Your task to perform on an android device: Do I have any events today? Image 0: 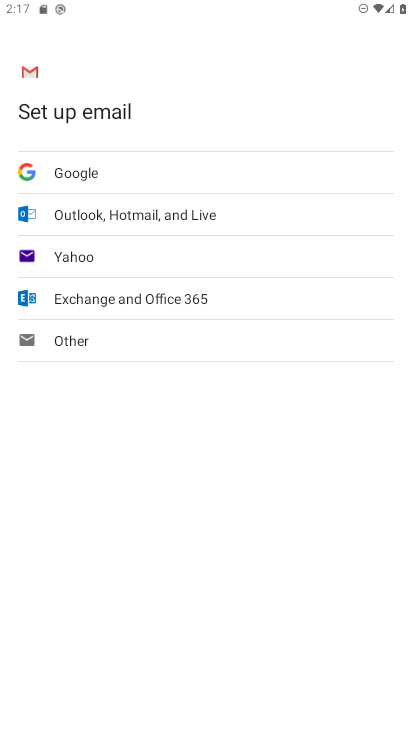
Step 0: press home button
Your task to perform on an android device: Do I have any events today? Image 1: 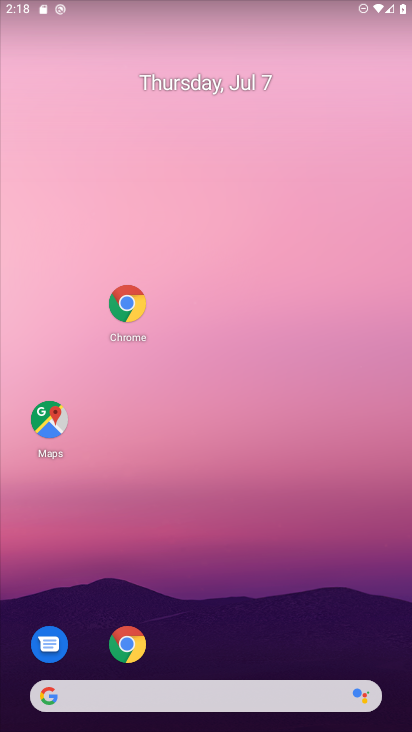
Step 1: drag from (316, 549) to (299, 8)
Your task to perform on an android device: Do I have any events today? Image 2: 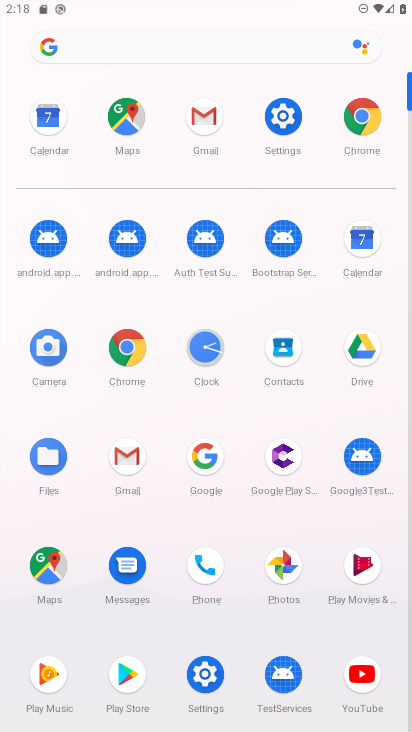
Step 2: click (362, 253)
Your task to perform on an android device: Do I have any events today? Image 3: 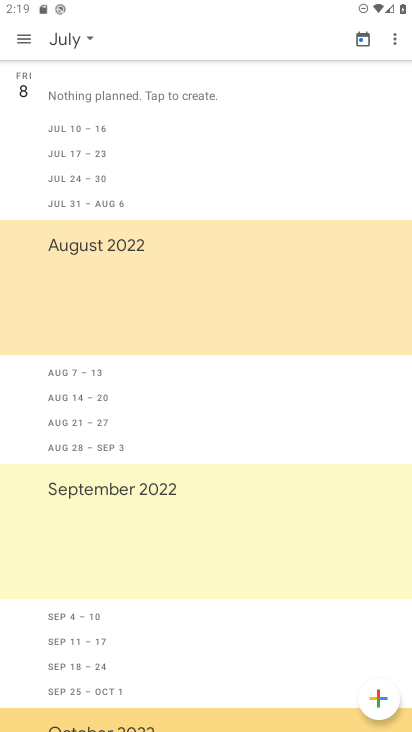
Step 3: click (37, 48)
Your task to perform on an android device: Do I have any events today? Image 4: 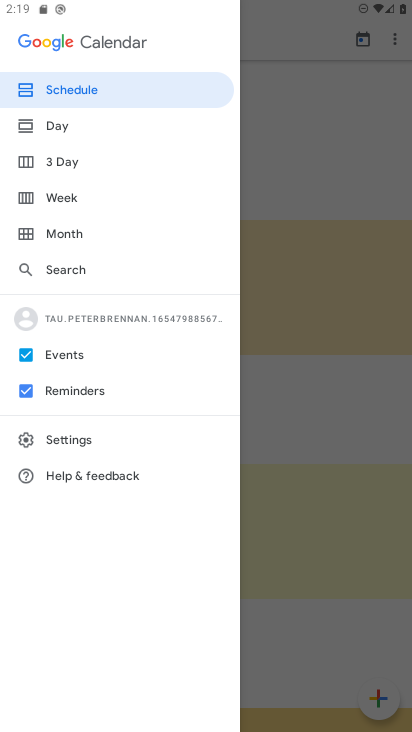
Step 4: click (100, 120)
Your task to perform on an android device: Do I have any events today? Image 5: 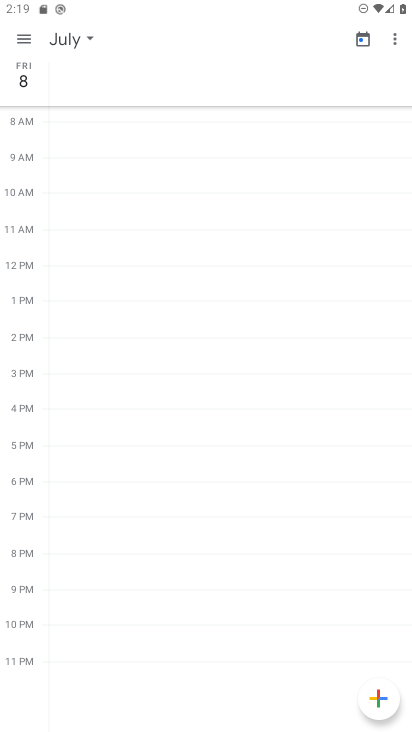
Step 5: task complete